Your task to perform on an android device: move a message to another label in the gmail app Image 0: 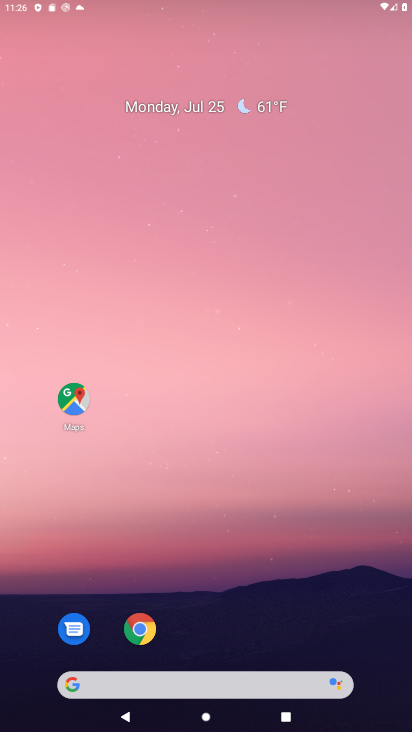
Step 0: drag from (188, 654) to (203, 1)
Your task to perform on an android device: move a message to another label in the gmail app Image 1: 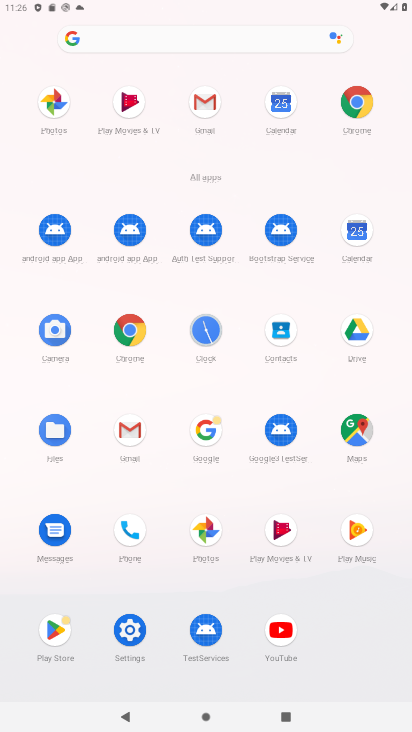
Step 1: click (96, 432)
Your task to perform on an android device: move a message to another label in the gmail app Image 2: 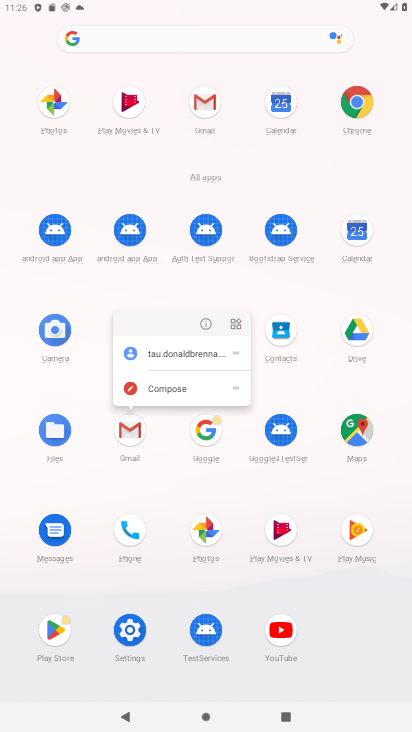
Step 2: click (208, 324)
Your task to perform on an android device: move a message to another label in the gmail app Image 3: 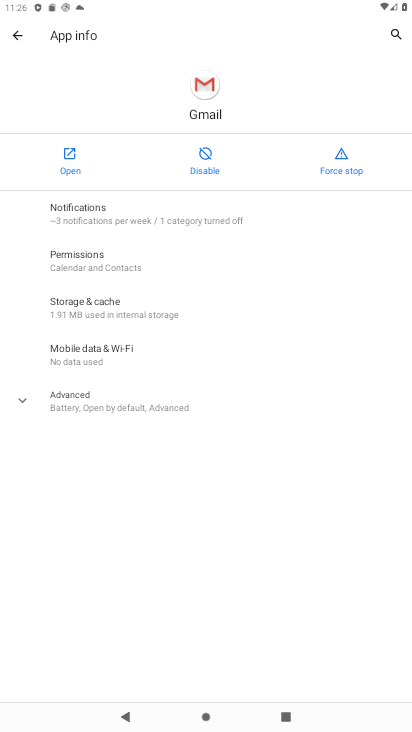
Step 3: click (74, 148)
Your task to perform on an android device: move a message to another label in the gmail app Image 4: 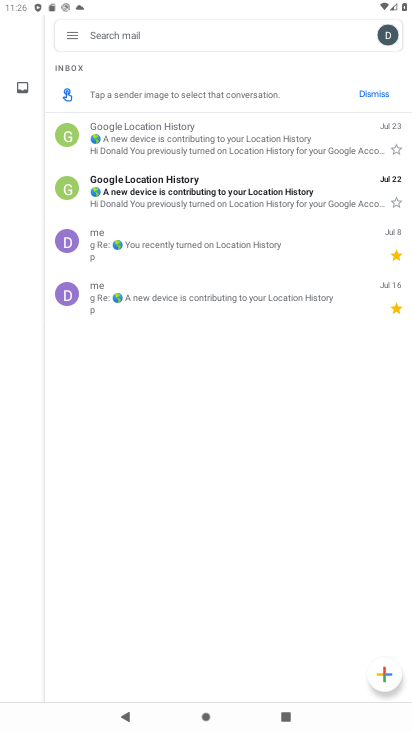
Step 4: click (184, 235)
Your task to perform on an android device: move a message to another label in the gmail app Image 5: 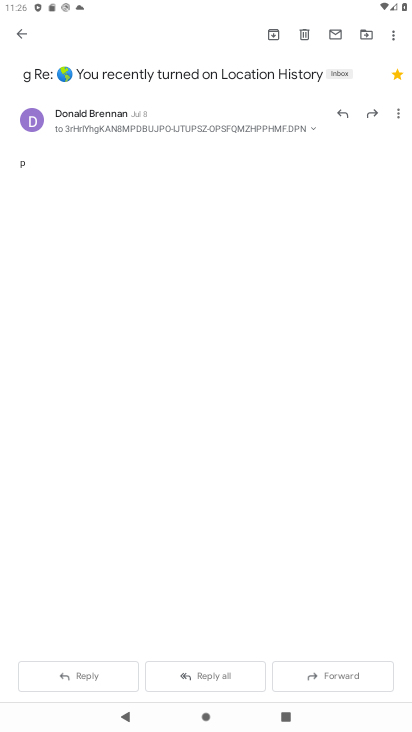
Step 5: drag from (389, 28) to (347, 71)
Your task to perform on an android device: move a message to another label in the gmail app Image 6: 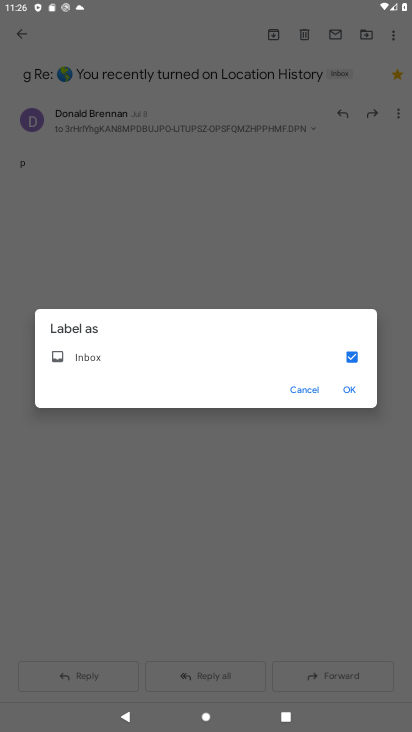
Step 6: click (347, 388)
Your task to perform on an android device: move a message to another label in the gmail app Image 7: 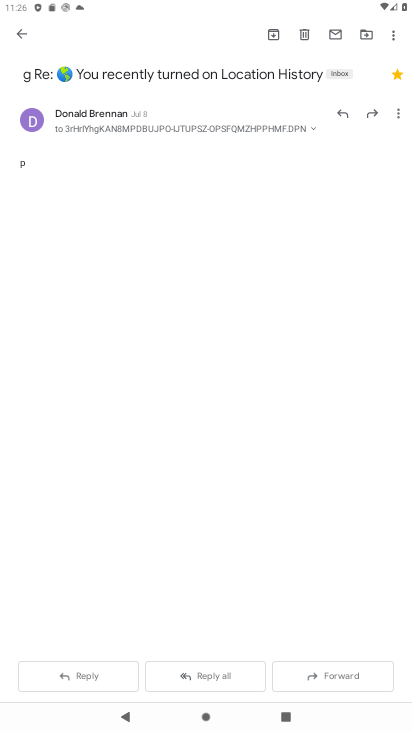
Step 7: task complete